Your task to perform on an android device: turn off javascript in the chrome app Image 0: 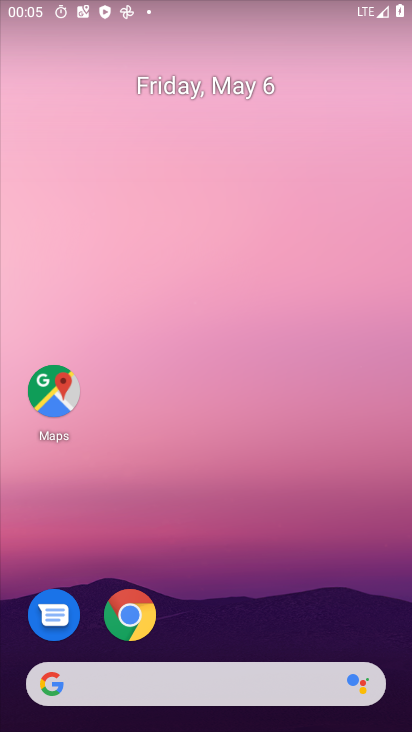
Step 0: click (128, 613)
Your task to perform on an android device: turn off javascript in the chrome app Image 1: 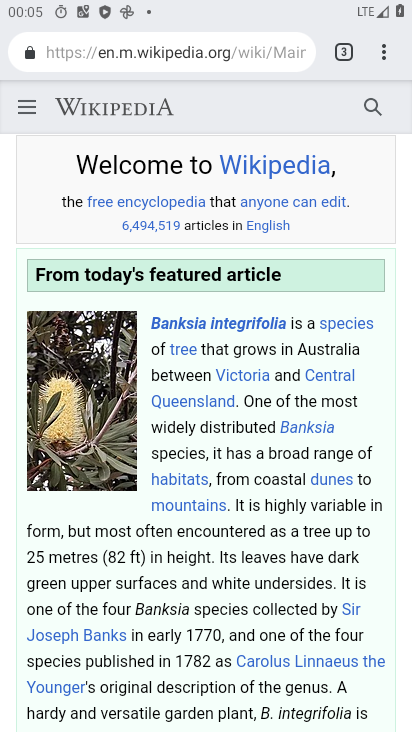
Step 1: click (375, 48)
Your task to perform on an android device: turn off javascript in the chrome app Image 2: 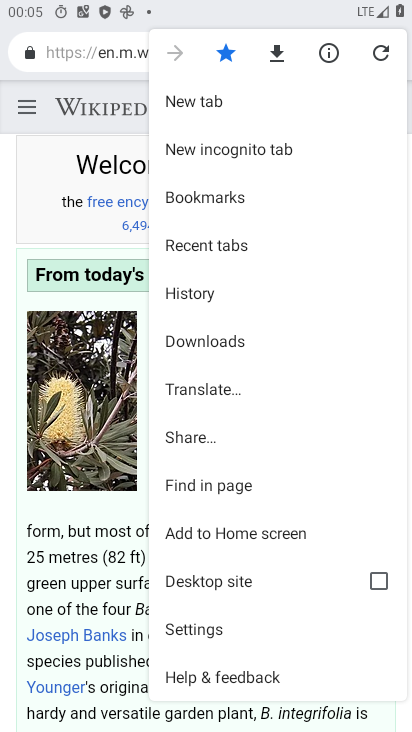
Step 2: click (221, 640)
Your task to perform on an android device: turn off javascript in the chrome app Image 3: 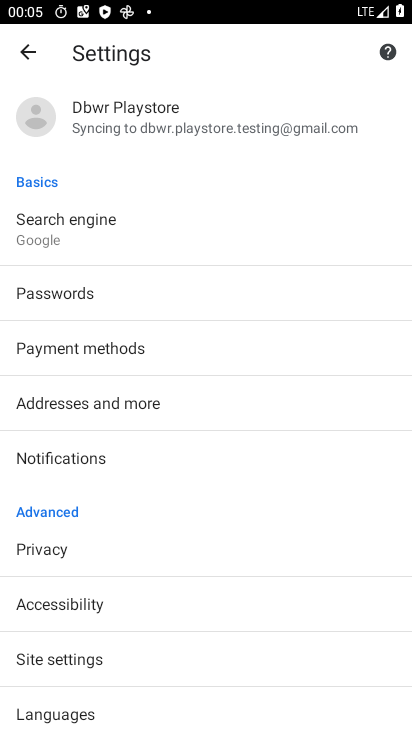
Step 3: drag from (111, 650) to (148, 404)
Your task to perform on an android device: turn off javascript in the chrome app Image 4: 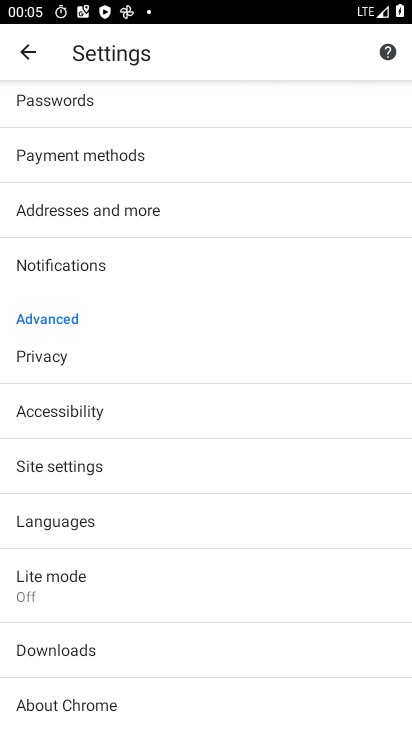
Step 4: click (78, 466)
Your task to perform on an android device: turn off javascript in the chrome app Image 5: 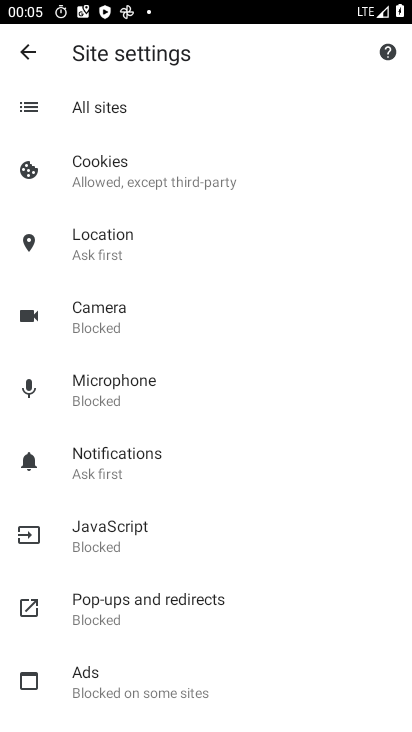
Step 5: click (134, 541)
Your task to perform on an android device: turn off javascript in the chrome app Image 6: 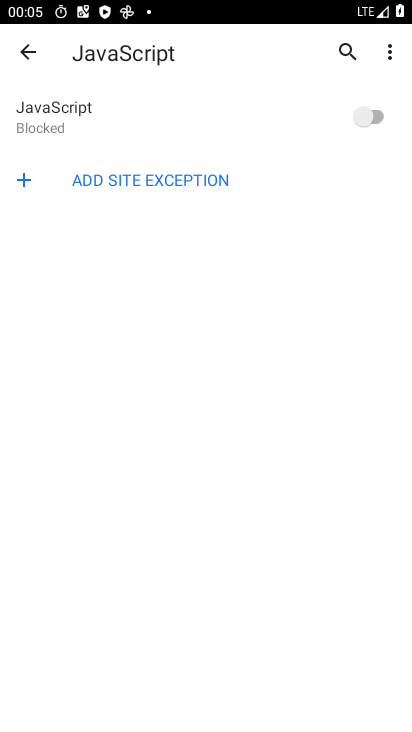
Step 6: task complete